Your task to perform on an android device: Search for Mexican restaurants on Maps Image 0: 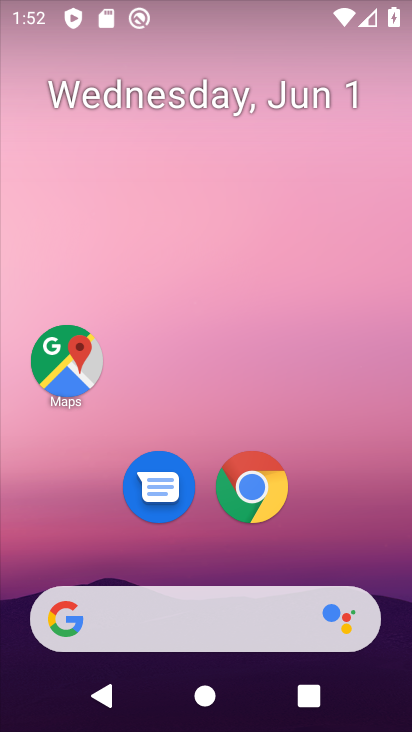
Step 0: drag from (378, 561) to (378, 142)
Your task to perform on an android device: Search for Mexican restaurants on Maps Image 1: 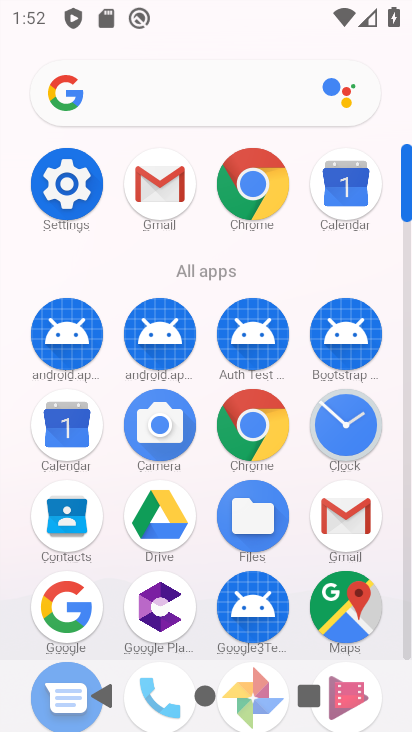
Step 1: drag from (393, 555) to (393, 303)
Your task to perform on an android device: Search for Mexican restaurants on Maps Image 2: 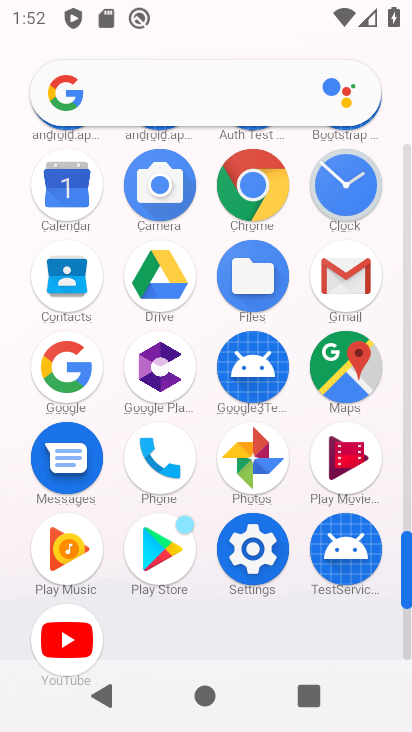
Step 2: click (353, 386)
Your task to perform on an android device: Search for Mexican restaurants on Maps Image 3: 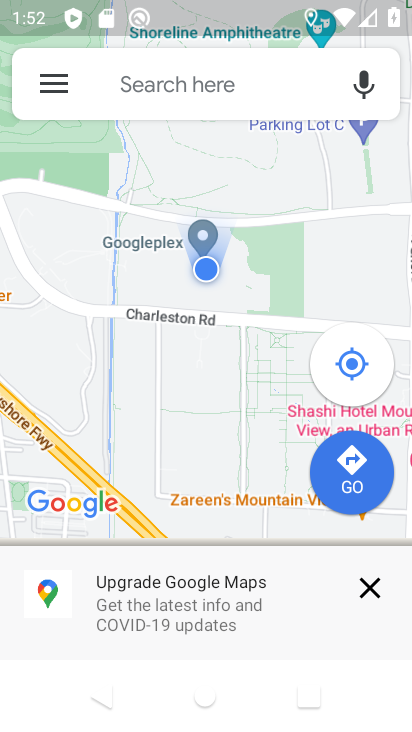
Step 3: click (258, 79)
Your task to perform on an android device: Search for Mexican restaurants on Maps Image 4: 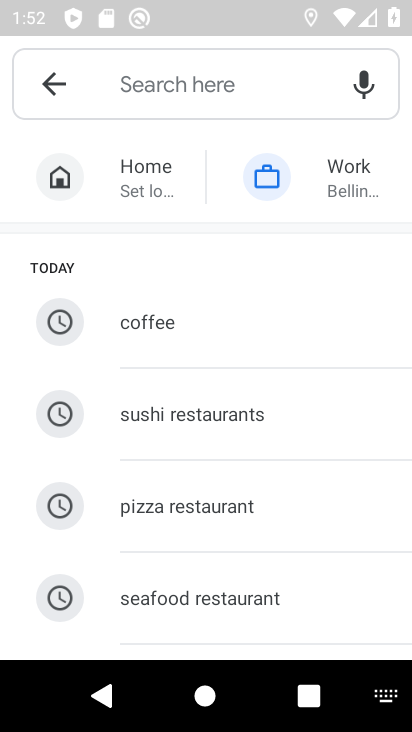
Step 4: drag from (337, 557) to (359, 362)
Your task to perform on an android device: Search for Mexican restaurants on Maps Image 5: 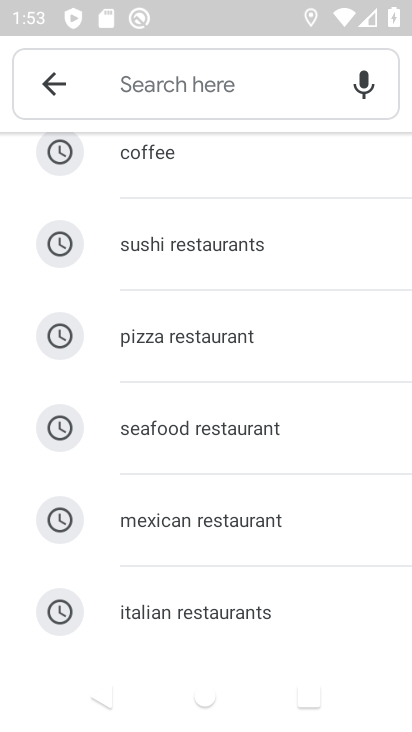
Step 5: click (270, 531)
Your task to perform on an android device: Search for Mexican restaurants on Maps Image 6: 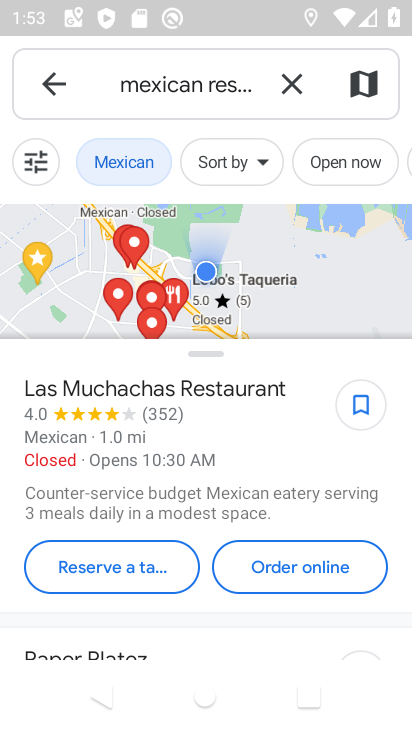
Step 6: task complete